Your task to perform on an android device: see sites visited before in the chrome app Image 0: 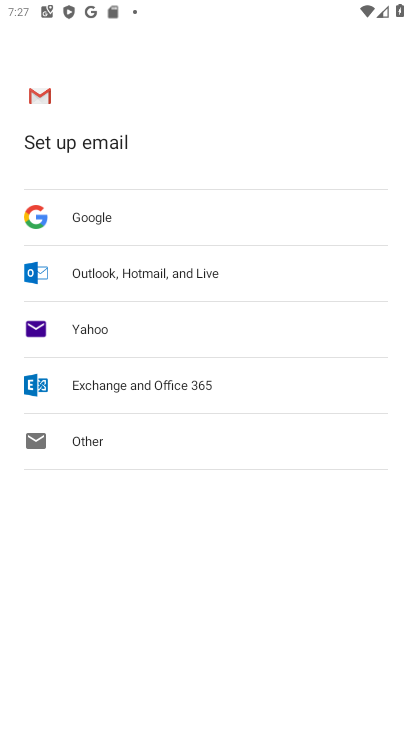
Step 0: press home button
Your task to perform on an android device: see sites visited before in the chrome app Image 1: 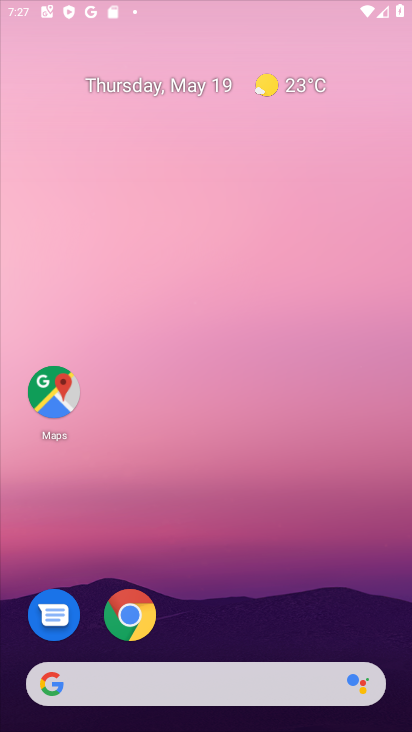
Step 1: drag from (373, 616) to (333, 62)
Your task to perform on an android device: see sites visited before in the chrome app Image 2: 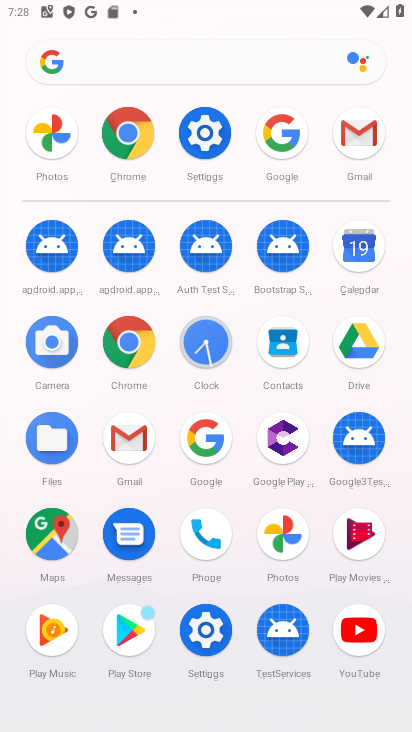
Step 2: click (108, 140)
Your task to perform on an android device: see sites visited before in the chrome app Image 3: 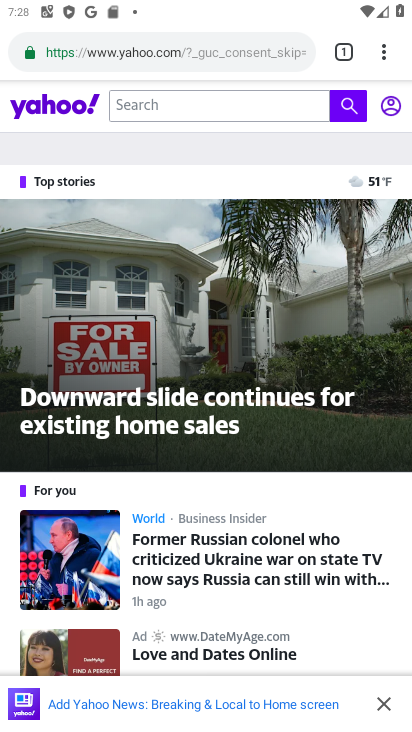
Step 3: press back button
Your task to perform on an android device: see sites visited before in the chrome app Image 4: 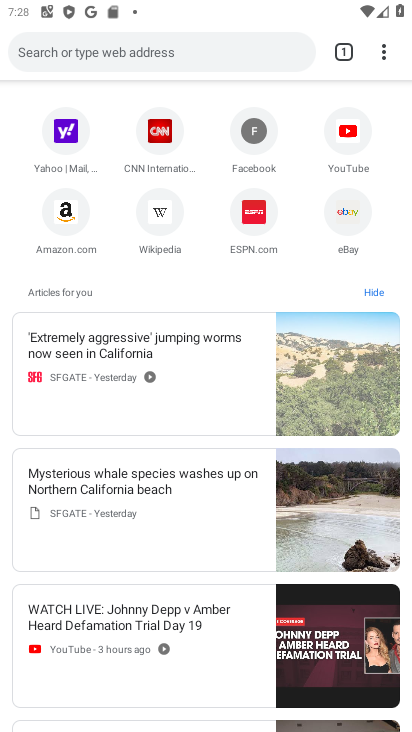
Step 4: click (383, 56)
Your task to perform on an android device: see sites visited before in the chrome app Image 5: 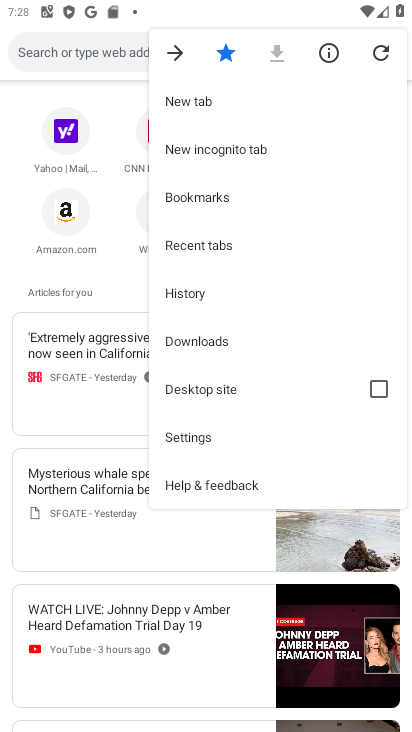
Step 5: click (224, 295)
Your task to perform on an android device: see sites visited before in the chrome app Image 6: 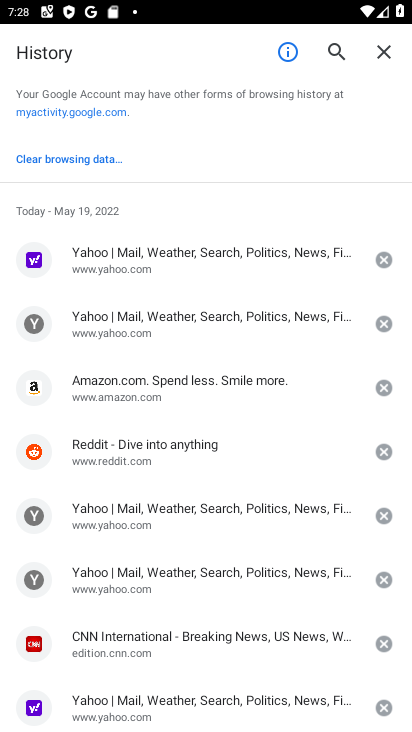
Step 6: click (139, 274)
Your task to perform on an android device: see sites visited before in the chrome app Image 7: 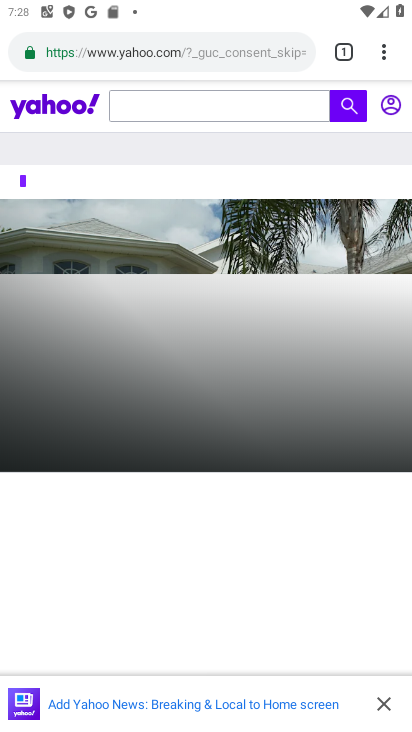
Step 7: task complete